Your task to perform on an android device: Do I have any events this weekend? Image 0: 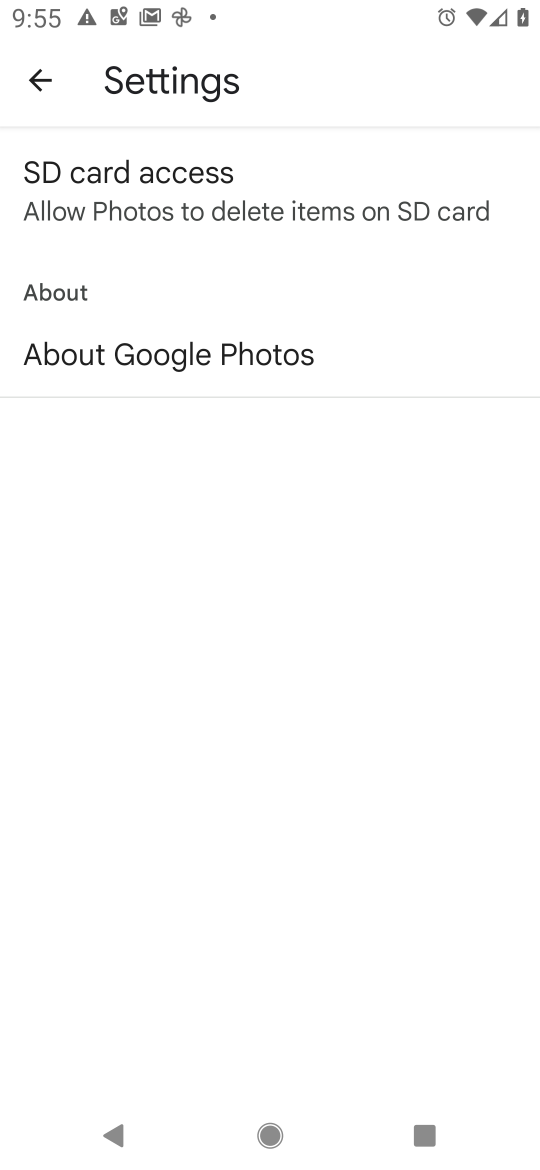
Step 0: press home button
Your task to perform on an android device: Do I have any events this weekend? Image 1: 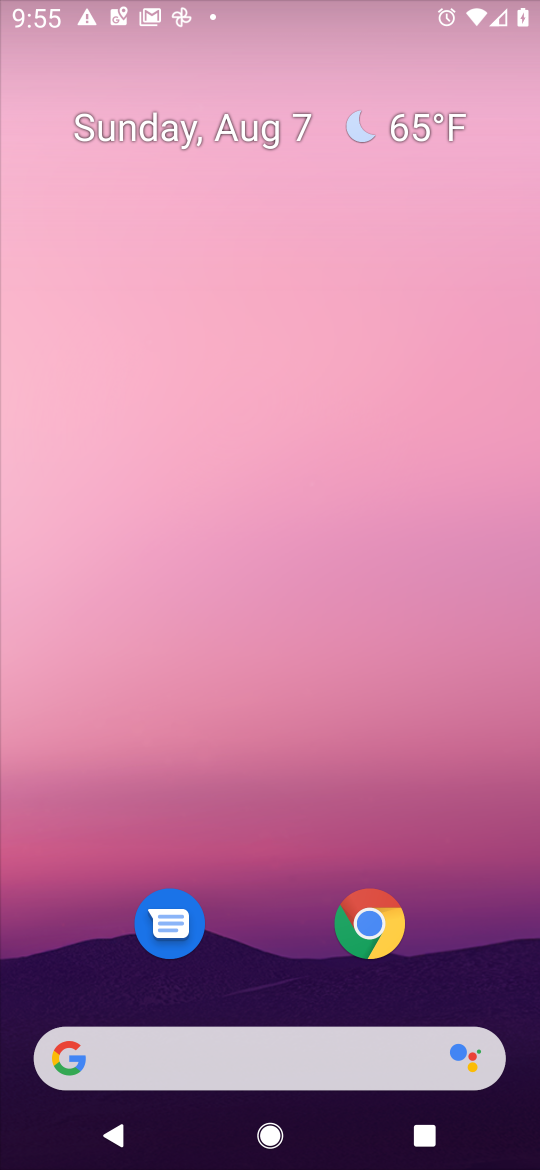
Step 1: drag from (503, 1006) to (310, 120)
Your task to perform on an android device: Do I have any events this weekend? Image 2: 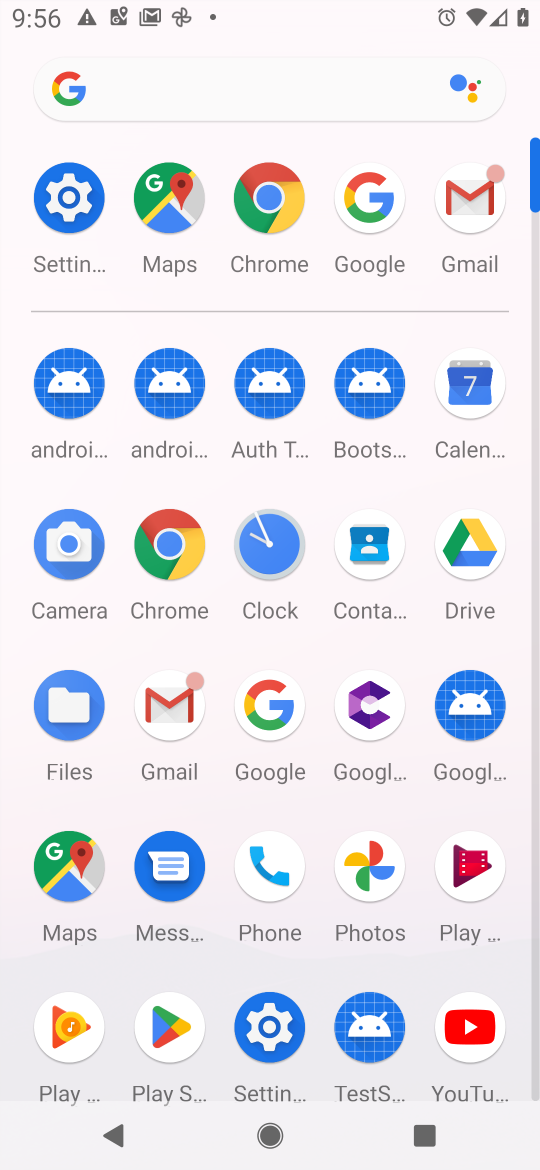
Step 2: click (456, 380)
Your task to perform on an android device: Do I have any events this weekend? Image 3: 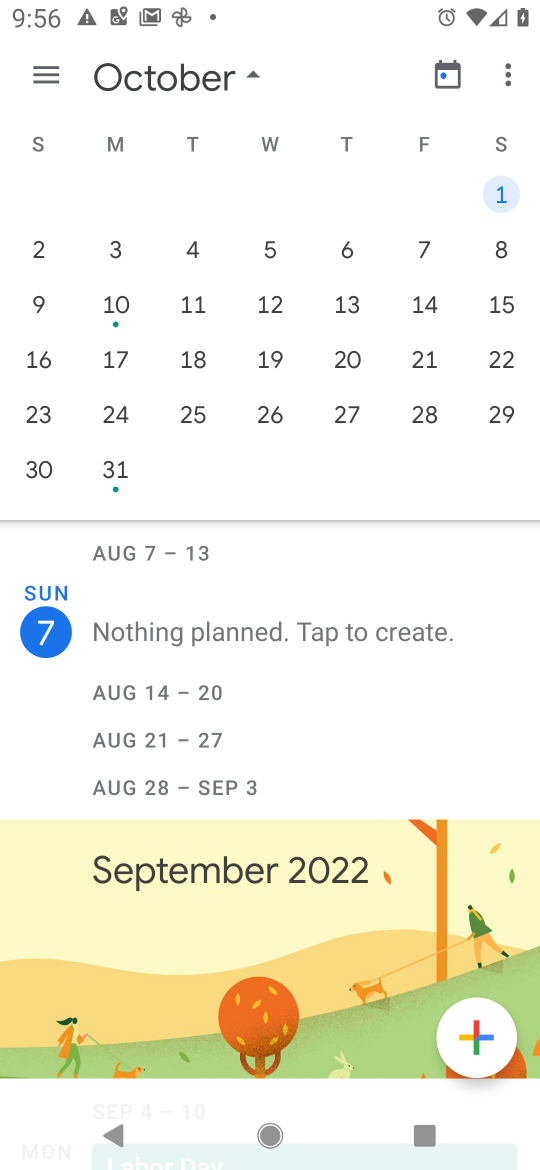
Step 3: task complete